Your task to perform on an android device: Do I have any events today? Image 0: 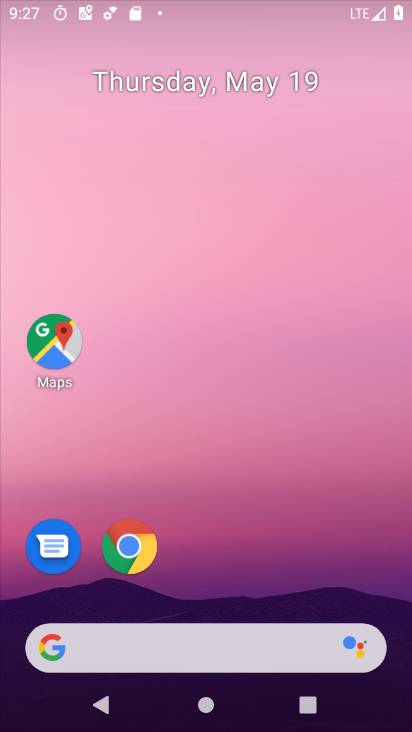
Step 0: drag from (274, 681) to (168, 248)
Your task to perform on an android device: Do I have any events today? Image 1: 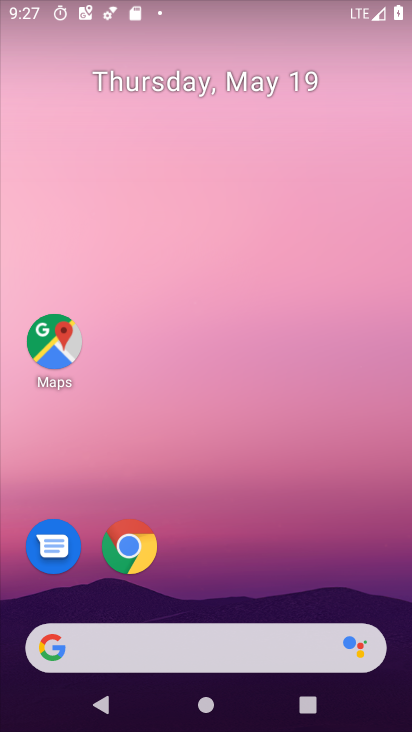
Step 1: drag from (252, 595) to (164, 19)
Your task to perform on an android device: Do I have any events today? Image 2: 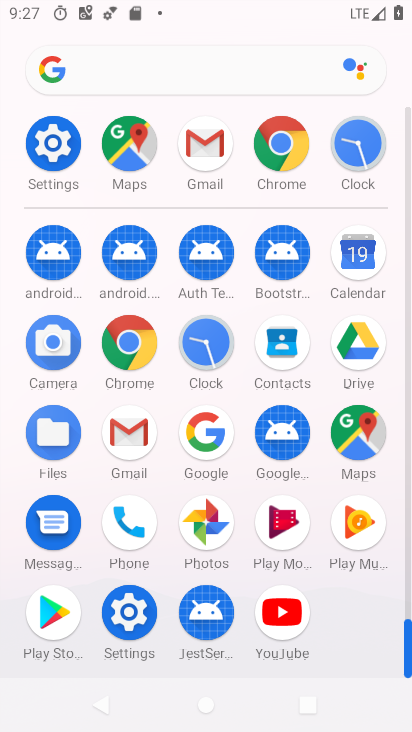
Step 2: click (358, 252)
Your task to perform on an android device: Do I have any events today? Image 3: 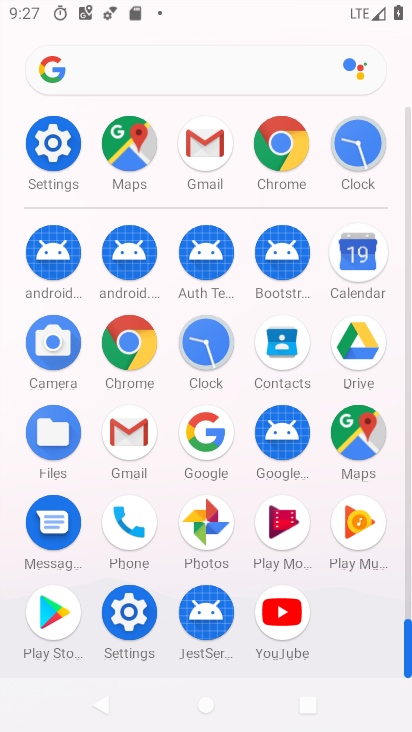
Step 3: click (358, 252)
Your task to perform on an android device: Do I have any events today? Image 4: 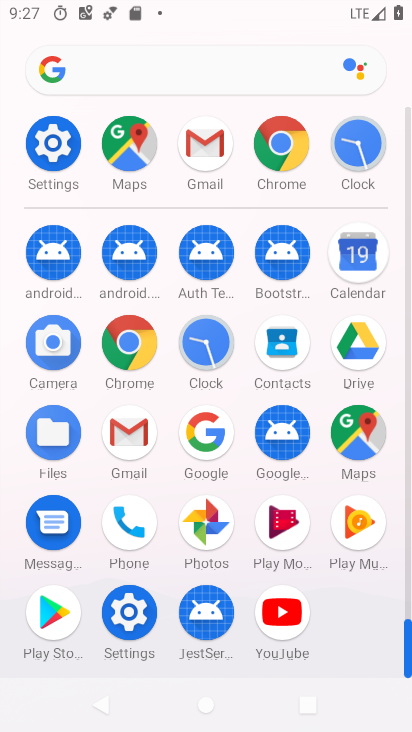
Step 4: click (358, 252)
Your task to perform on an android device: Do I have any events today? Image 5: 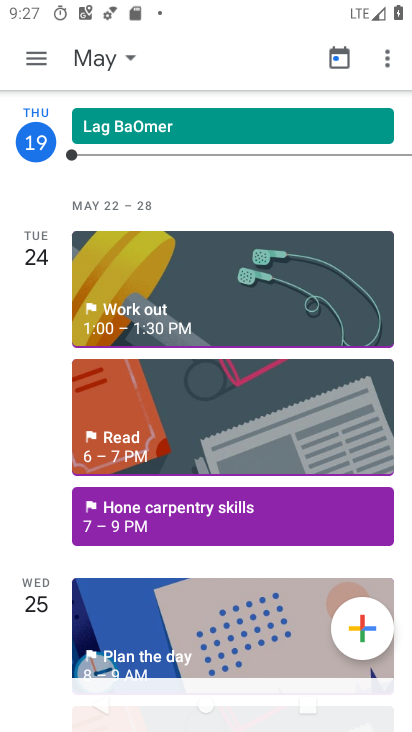
Step 5: drag from (143, 451) to (138, 187)
Your task to perform on an android device: Do I have any events today? Image 6: 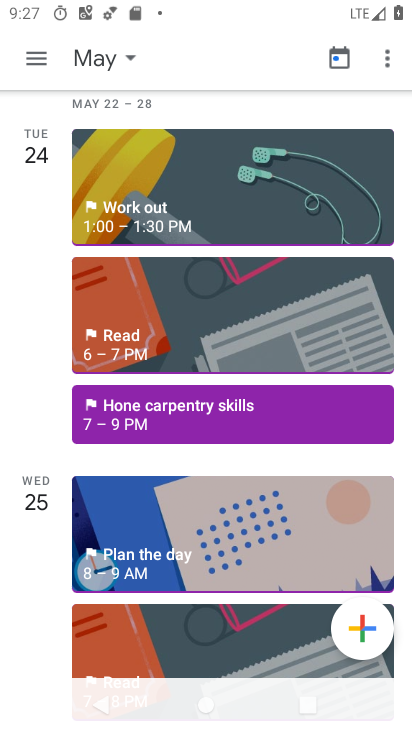
Step 6: drag from (192, 408) to (185, 136)
Your task to perform on an android device: Do I have any events today? Image 7: 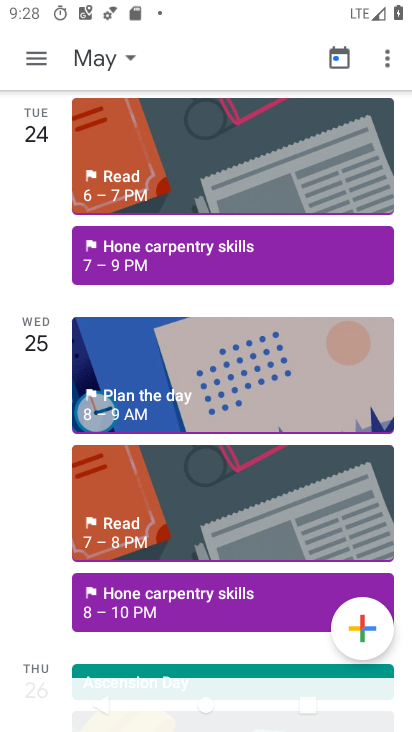
Step 7: drag from (141, 228) to (141, 593)
Your task to perform on an android device: Do I have any events today? Image 8: 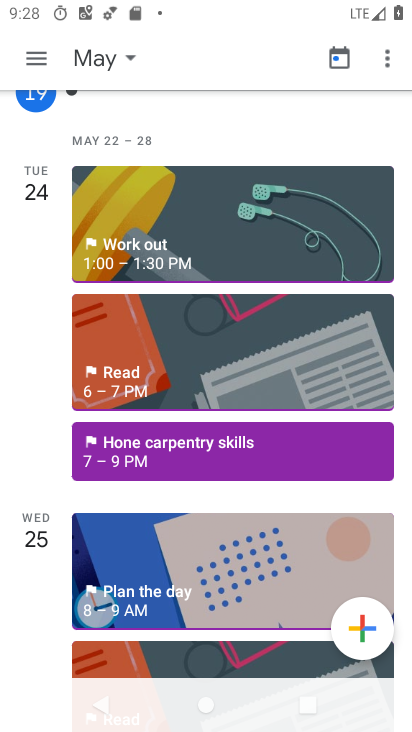
Step 8: drag from (149, 250) to (190, 523)
Your task to perform on an android device: Do I have any events today? Image 9: 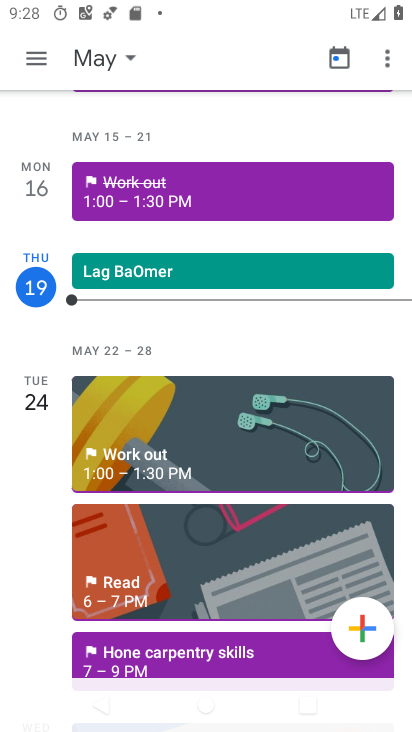
Step 9: drag from (201, 233) to (175, 704)
Your task to perform on an android device: Do I have any events today? Image 10: 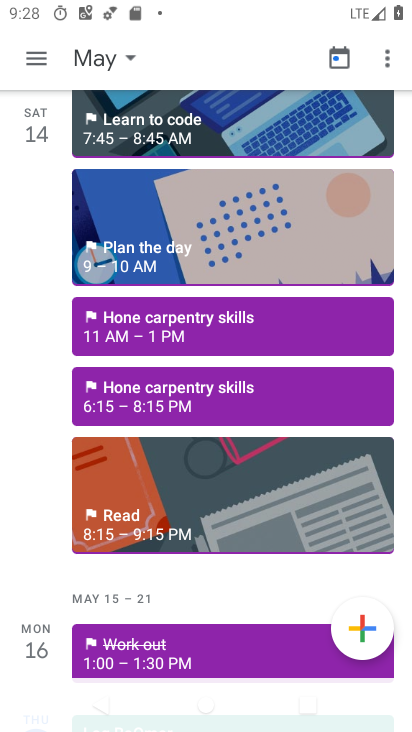
Step 10: drag from (157, 347) to (198, 621)
Your task to perform on an android device: Do I have any events today? Image 11: 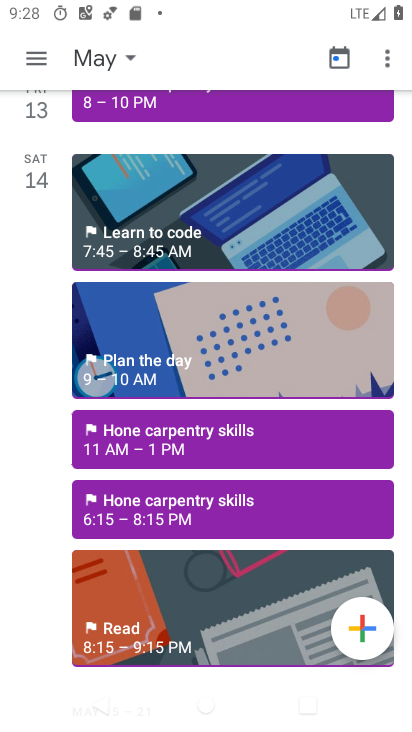
Step 11: drag from (154, 401) to (192, 707)
Your task to perform on an android device: Do I have any events today? Image 12: 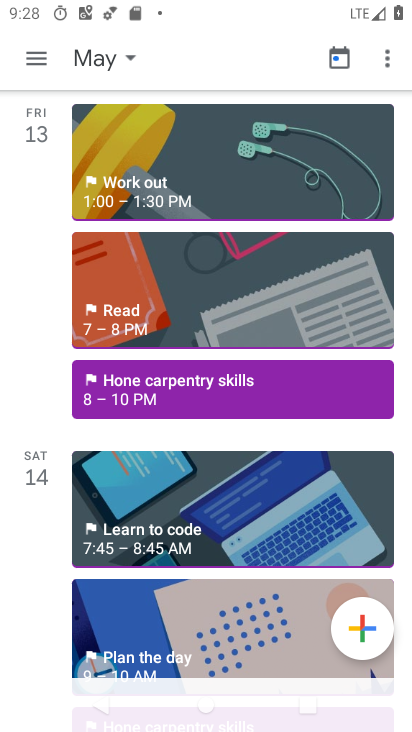
Step 12: drag from (233, 491) to (240, 553)
Your task to perform on an android device: Do I have any events today? Image 13: 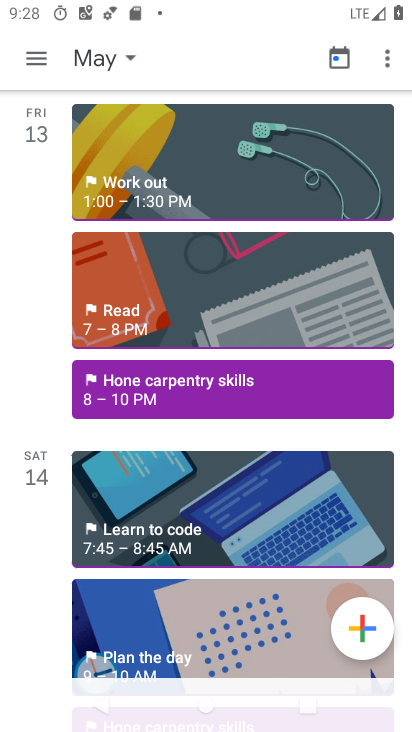
Step 13: click (219, 518)
Your task to perform on an android device: Do I have any events today? Image 14: 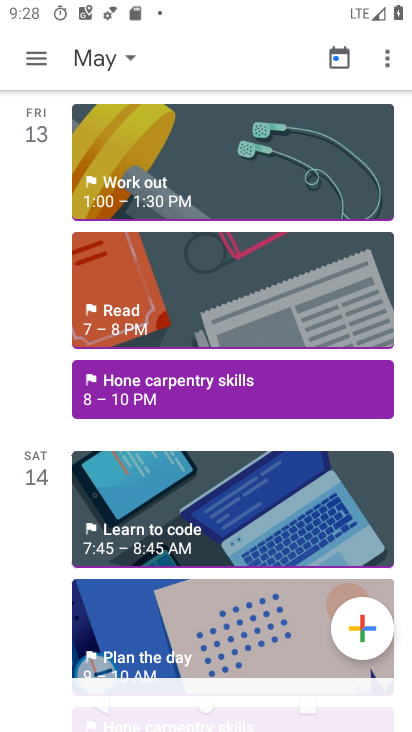
Step 14: drag from (181, 293) to (161, 620)
Your task to perform on an android device: Do I have any events today? Image 15: 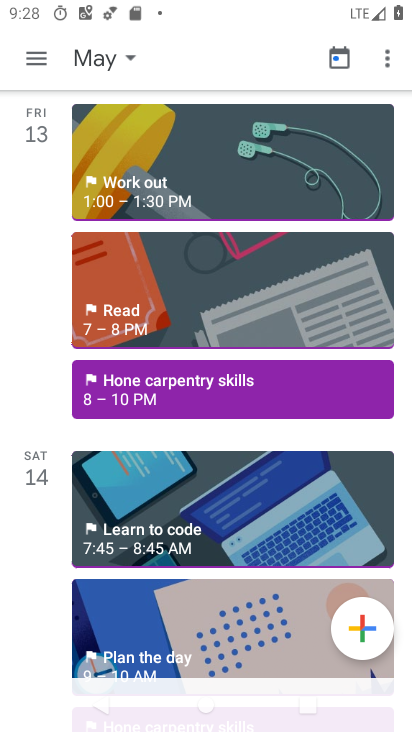
Step 15: drag from (182, 172) to (210, 617)
Your task to perform on an android device: Do I have any events today? Image 16: 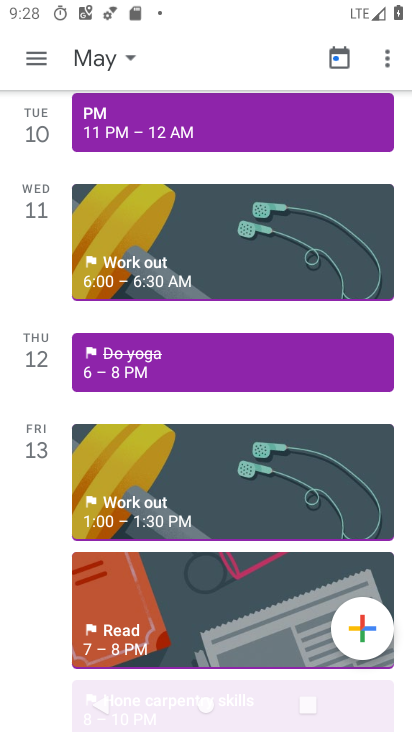
Step 16: drag from (184, 537) to (115, 112)
Your task to perform on an android device: Do I have any events today? Image 17: 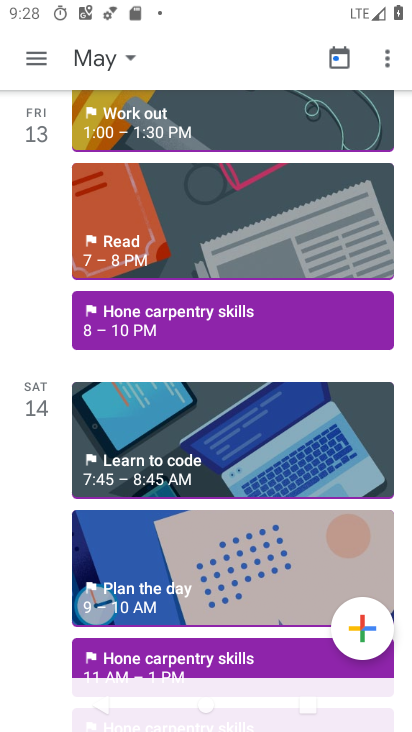
Step 17: drag from (135, 445) to (135, 259)
Your task to perform on an android device: Do I have any events today? Image 18: 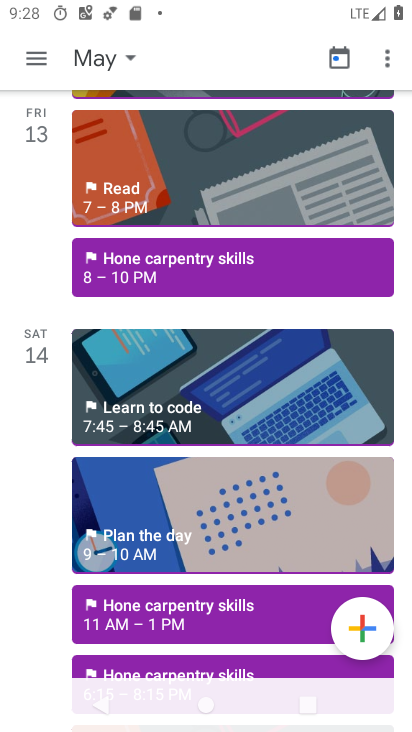
Step 18: drag from (140, 468) to (149, 216)
Your task to perform on an android device: Do I have any events today? Image 19: 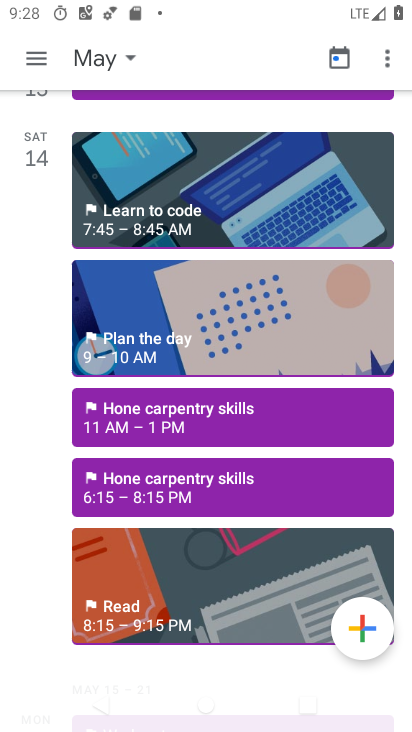
Step 19: drag from (184, 578) to (194, 179)
Your task to perform on an android device: Do I have any events today? Image 20: 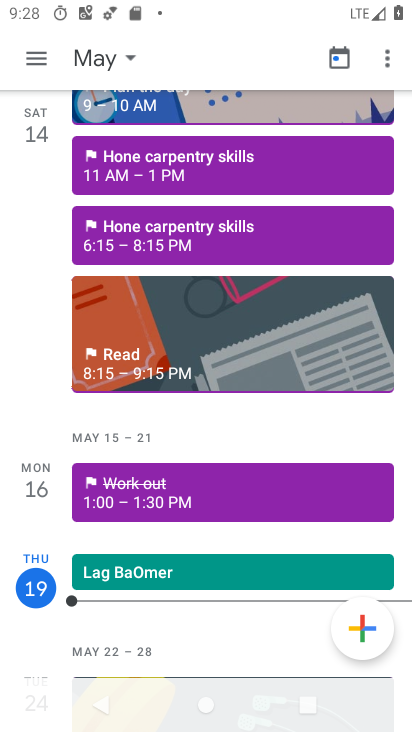
Step 20: drag from (218, 479) to (187, 105)
Your task to perform on an android device: Do I have any events today? Image 21: 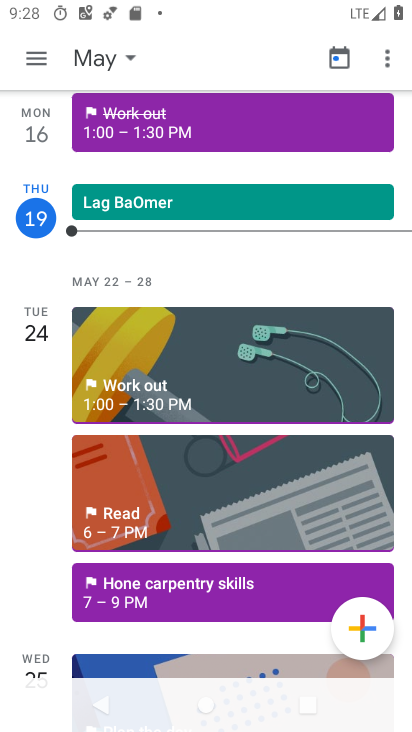
Step 21: drag from (208, 344) to (206, 43)
Your task to perform on an android device: Do I have any events today? Image 22: 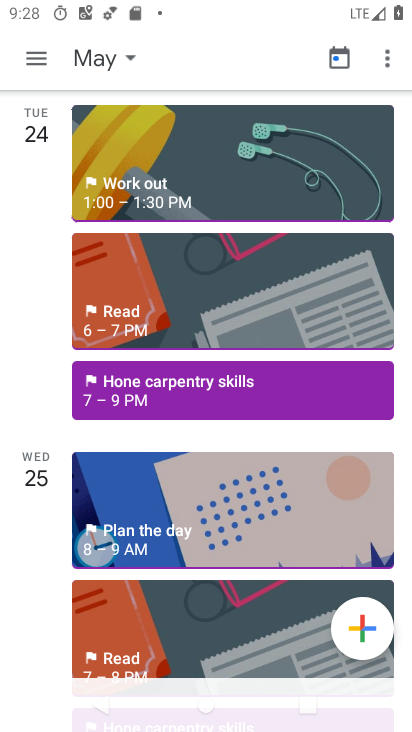
Step 22: drag from (225, 429) to (309, 133)
Your task to perform on an android device: Do I have any events today? Image 23: 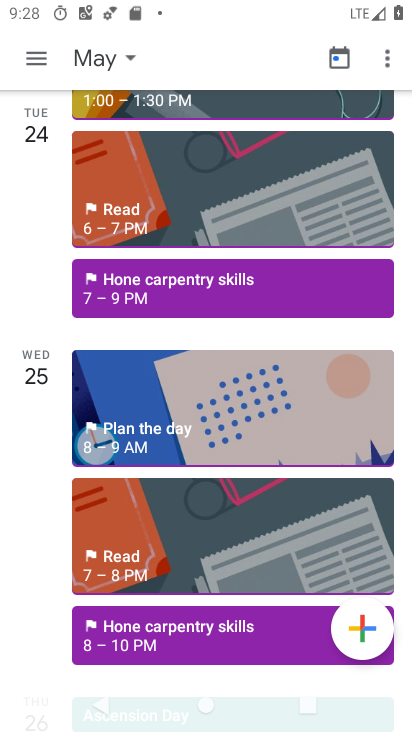
Step 23: drag from (193, 188) to (245, 547)
Your task to perform on an android device: Do I have any events today? Image 24: 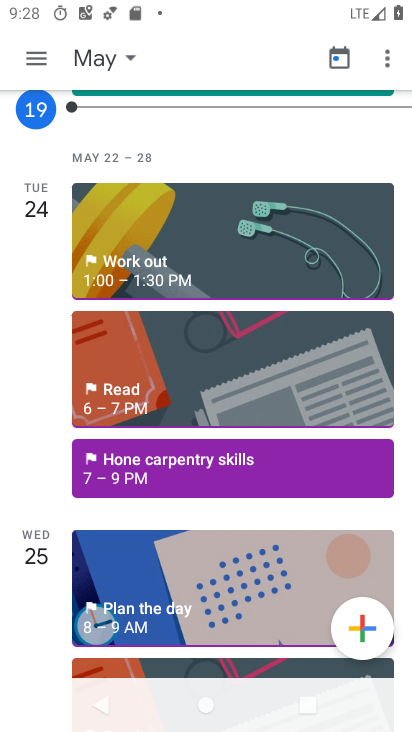
Step 24: drag from (165, 352) to (203, 631)
Your task to perform on an android device: Do I have any events today? Image 25: 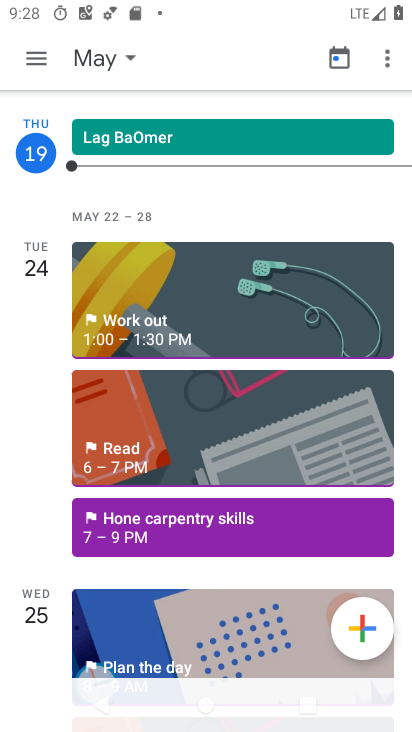
Step 25: drag from (157, 233) to (177, 459)
Your task to perform on an android device: Do I have any events today? Image 26: 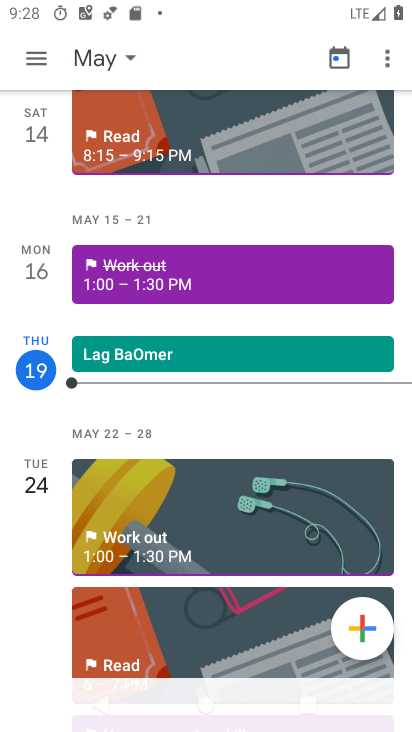
Step 26: click (133, 365)
Your task to perform on an android device: Do I have any events today? Image 27: 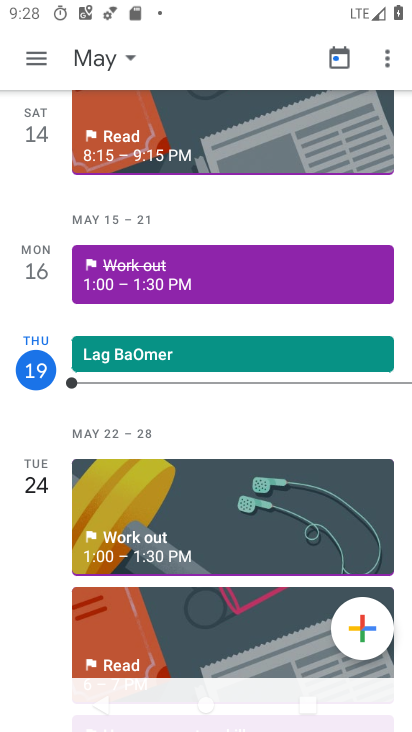
Step 27: click (133, 365)
Your task to perform on an android device: Do I have any events today? Image 28: 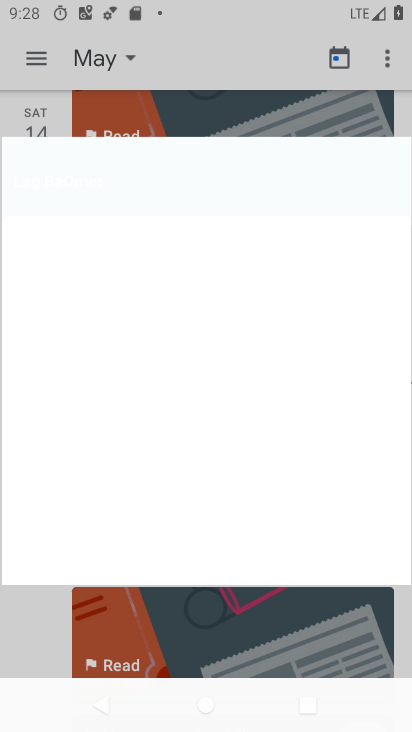
Step 28: click (133, 363)
Your task to perform on an android device: Do I have any events today? Image 29: 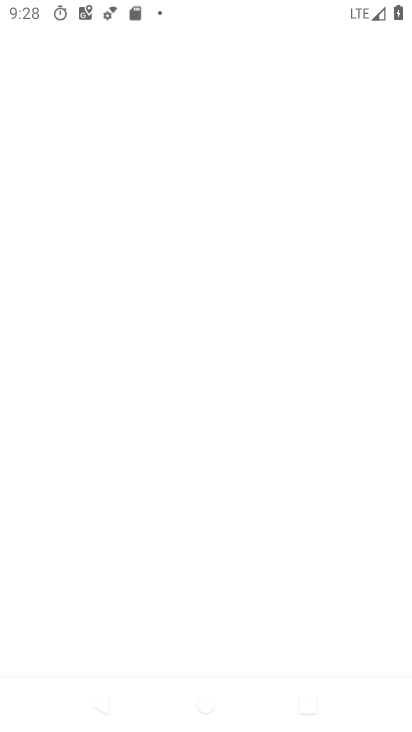
Step 29: click (132, 362)
Your task to perform on an android device: Do I have any events today? Image 30: 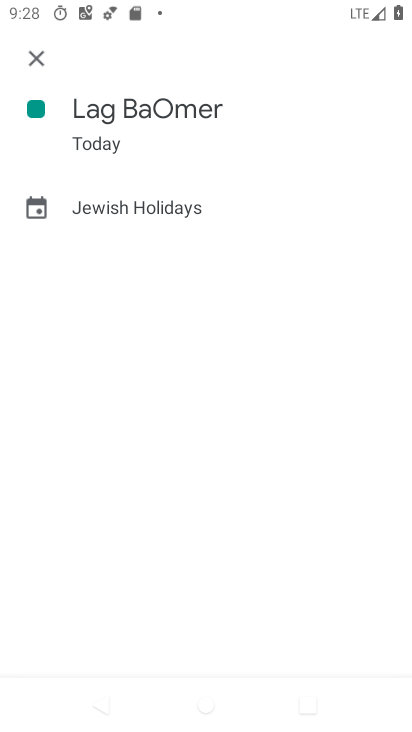
Step 30: task complete